Your task to perform on an android device: Open Youtube and go to "Your channel" Image 0: 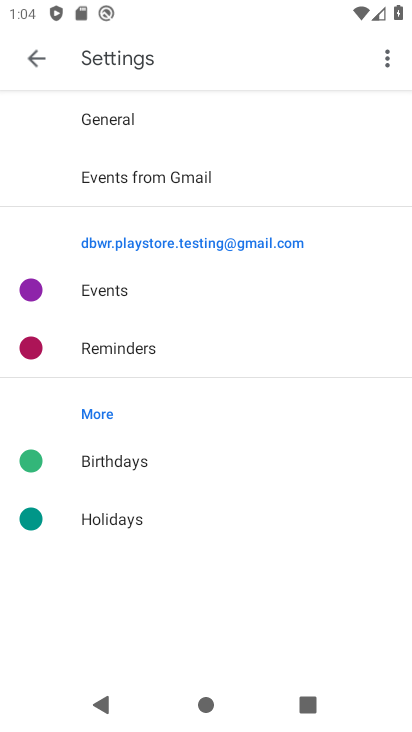
Step 0: press home button
Your task to perform on an android device: Open Youtube and go to "Your channel" Image 1: 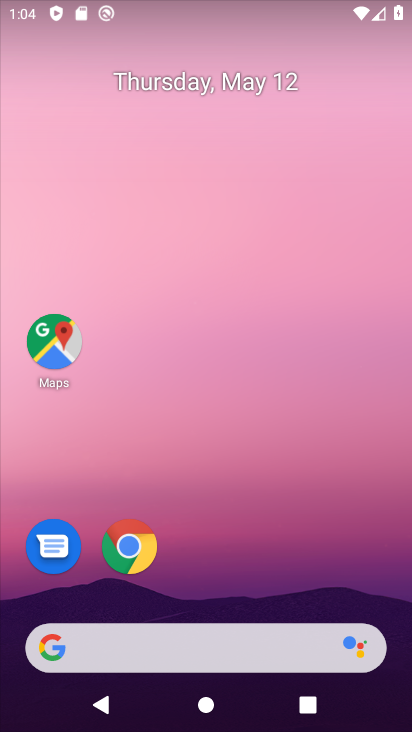
Step 1: drag from (122, 648) to (352, 180)
Your task to perform on an android device: Open Youtube and go to "Your channel" Image 2: 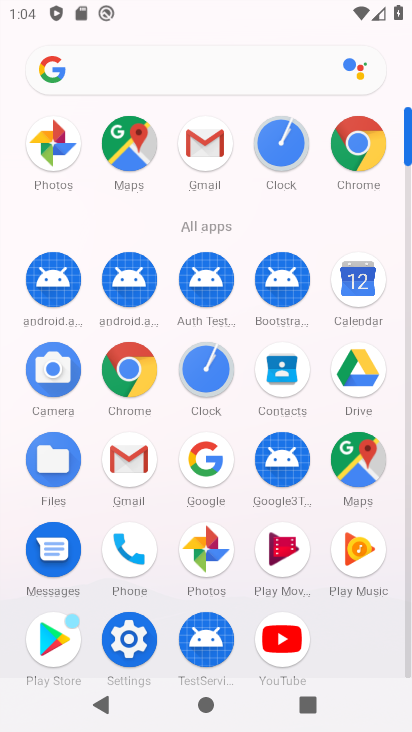
Step 2: click (291, 641)
Your task to perform on an android device: Open Youtube and go to "Your channel" Image 3: 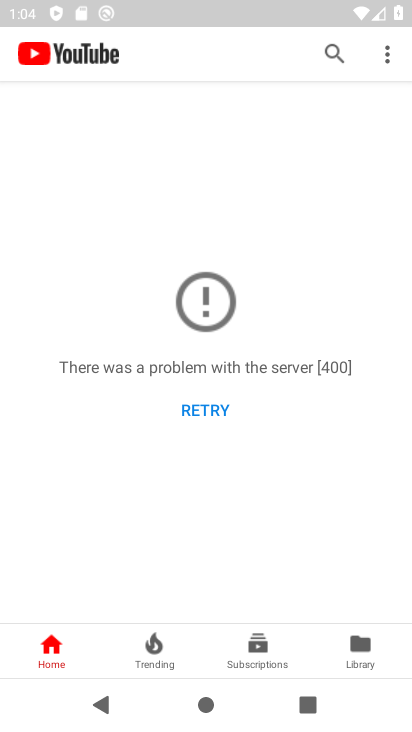
Step 3: click (217, 406)
Your task to perform on an android device: Open Youtube and go to "Your channel" Image 4: 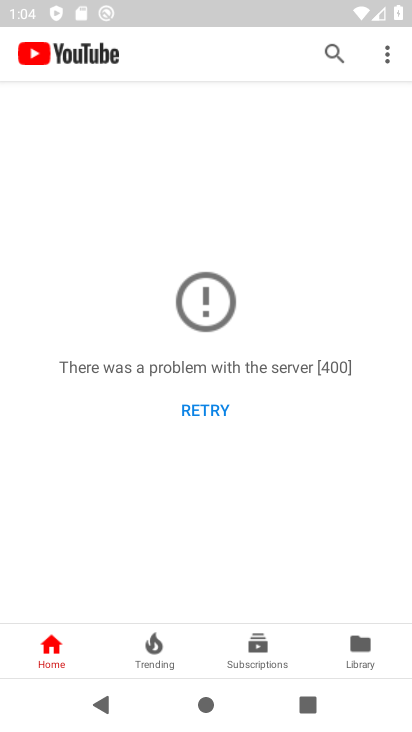
Step 4: click (208, 406)
Your task to perform on an android device: Open Youtube and go to "Your channel" Image 5: 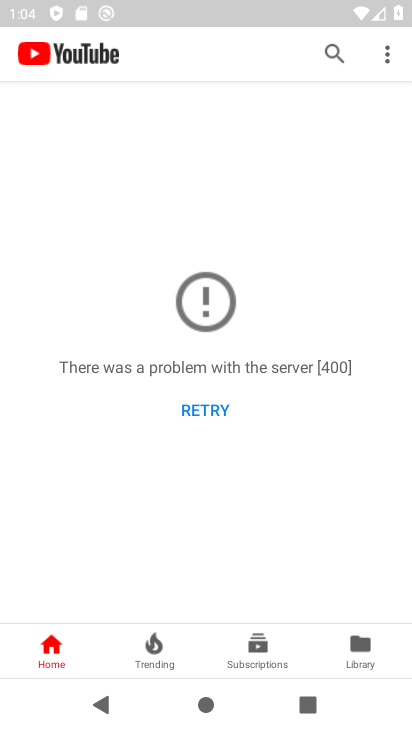
Step 5: click (200, 413)
Your task to perform on an android device: Open Youtube and go to "Your channel" Image 6: 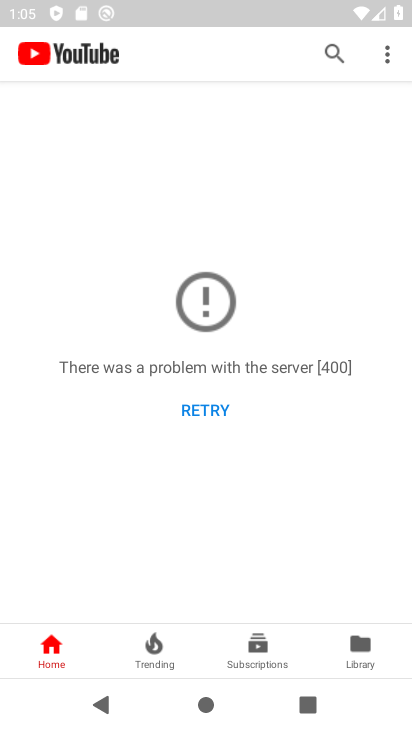
Step 6: click (384, 56)
Your task to perform on an android device: Open Youtube and go to "Your channel" Image 7: 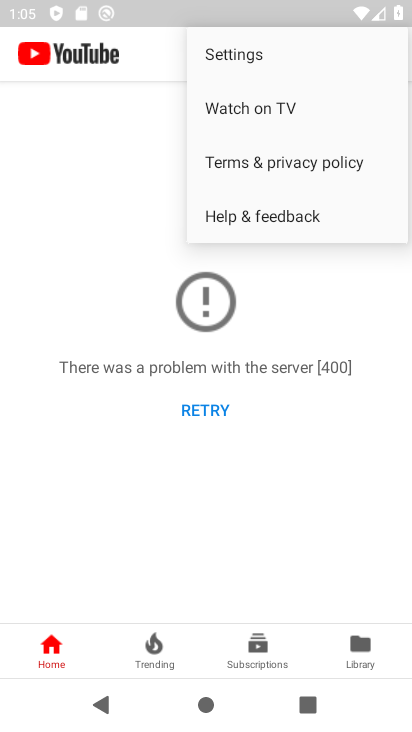
Step 7: click (195, 409)
Your task to perform on an android device: Open Youtube and go to "Your channel" Image 8: 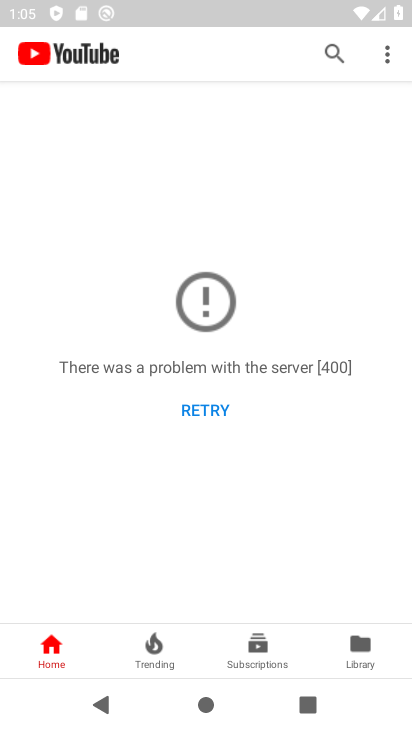
Step 8: click (206, 400)
Your task to perform on an android device: Open Youtube and go to "Your channel" Image 9: 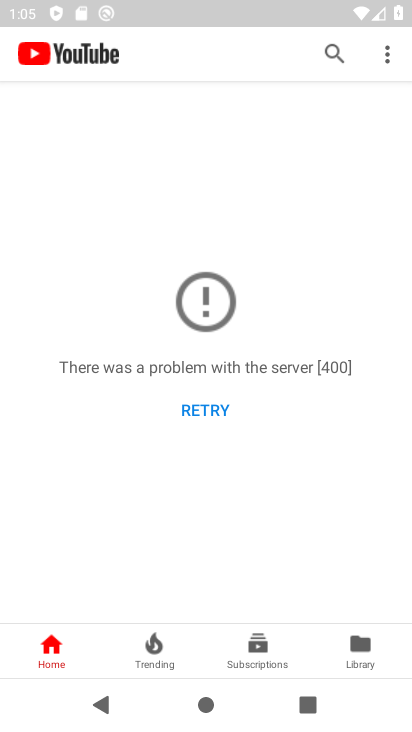
Step 9: click (386, 56)
Your task to perform on an android device: Open Youtube and go to "Your channel" Image 10: 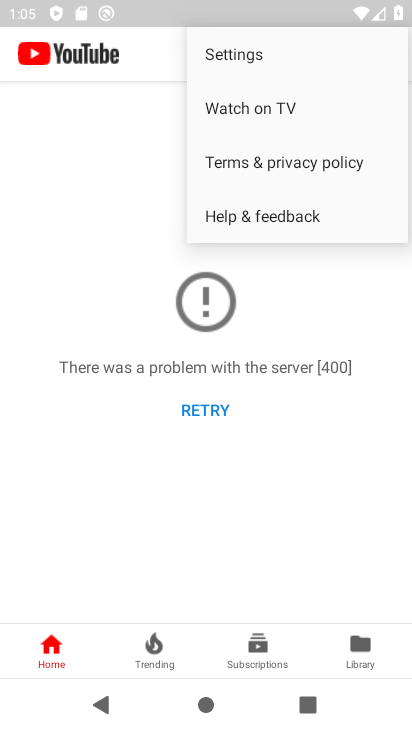
Step 10: click (255, 50)
Your task to perform on an android device: Open Youtube and go to "Your channel" Image 11: 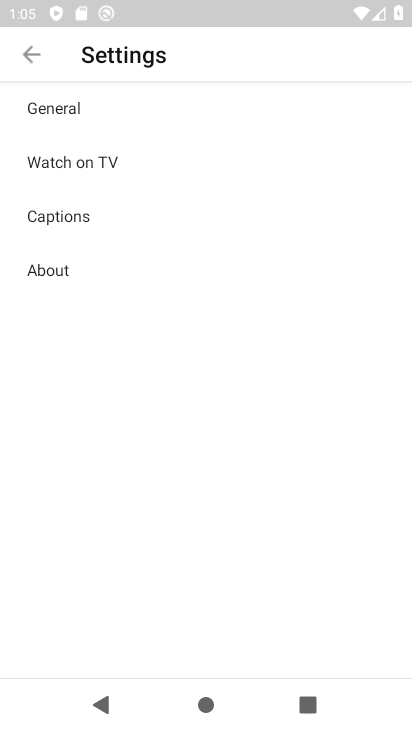
Step 11: click (29, 55)
Your task to perform on an android device: Open Youtube and go to "Your channel" Image 12: 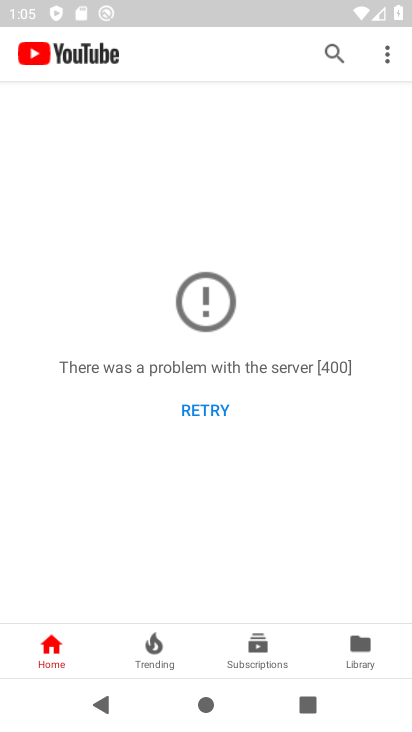
Step 12: task complete